Your task to perform on an android device: What's on my calendar tomorrow? Image 0: 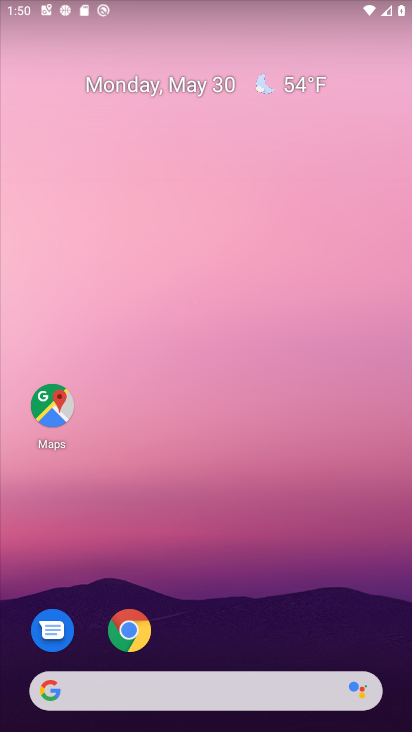
Step 0: press home button
Your task to perform on an android device: What's on my calendar tomorrow? Image 1: 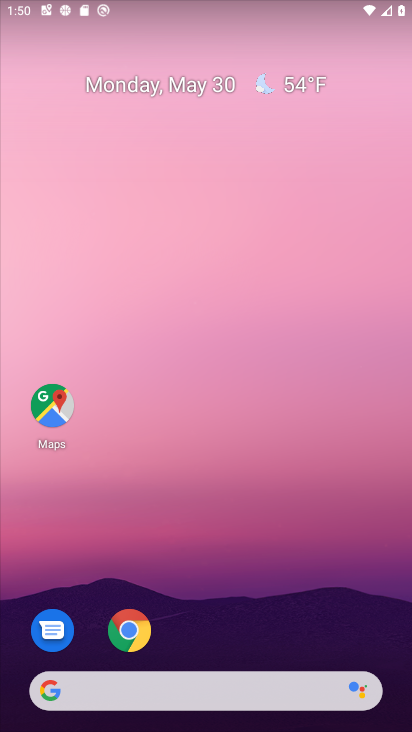
Step 1: drag from (131, 697) to (236, 110)
Your task to perform on an android device: What's on my calendar tomorrow? Image 2: 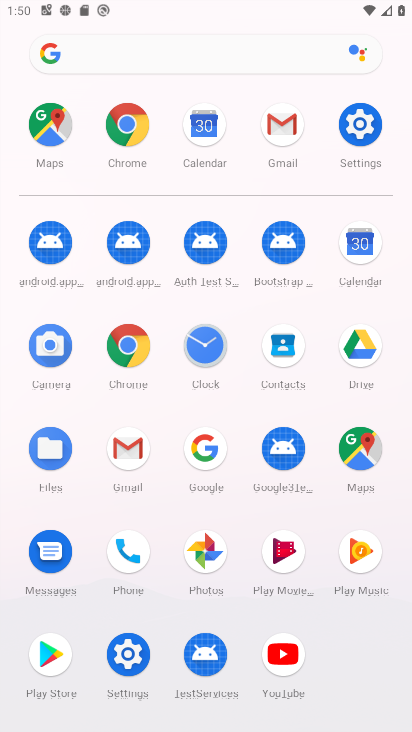
Step 2: click (203, 135)
Your task to perform on an android device: What's on my calendar tomorrow? Image 3: 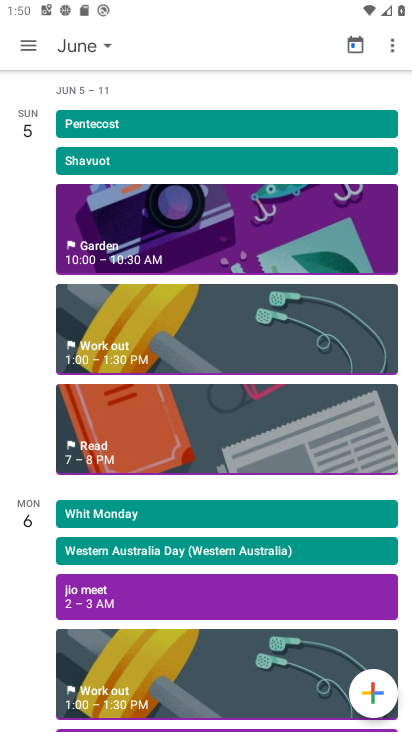
Step 3: click (77, 52)
Your task to perform on an android device: What's on my calendar tomorrow? Image 4: 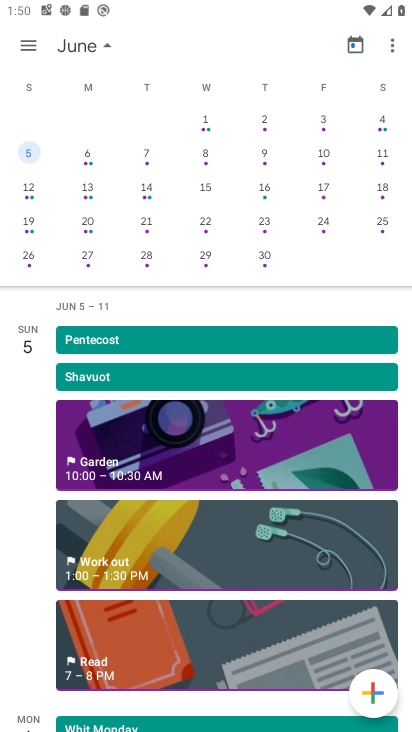
Step 4: drag from (115, 242) to (377, 257)
Your task to perform on an android device: What's on my calendar tomorrow? Image 5: 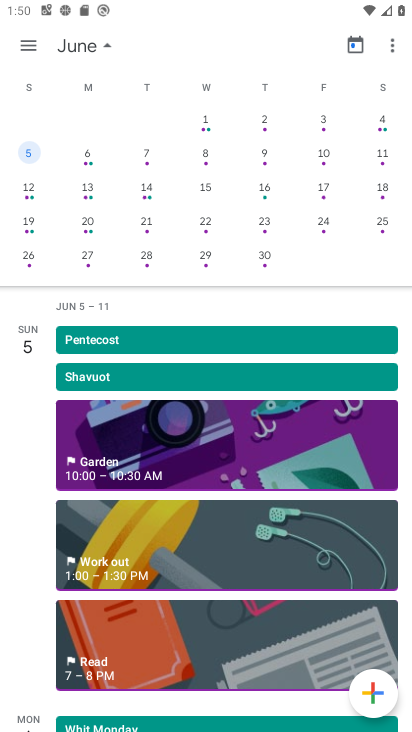
Step 5: drag from (72, 177) to (396, 250)
Your task to perform on an android device: What's on my calendar tomorrow? Image 6: 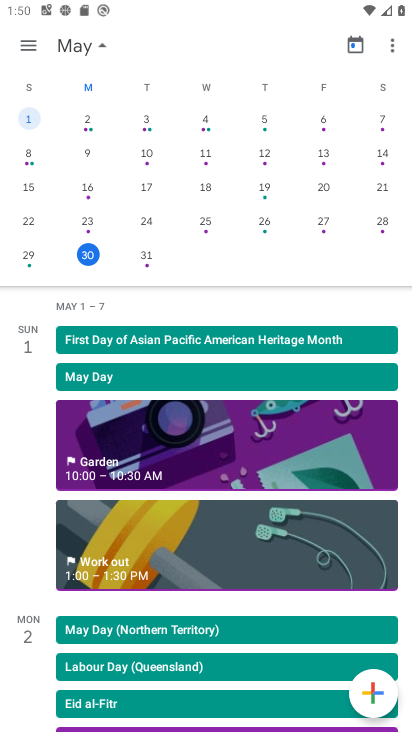
Step 6: click (146, 259)
Your task to perform on an android device: What's on my calendar tomorrow? Image 7: 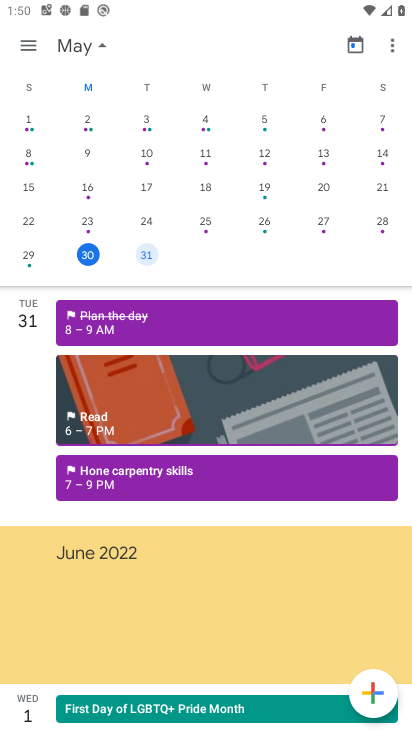
Step 7: click (37, 41)
Your task to perform on an android device: What's on my calendar tomorrow? Image 8: 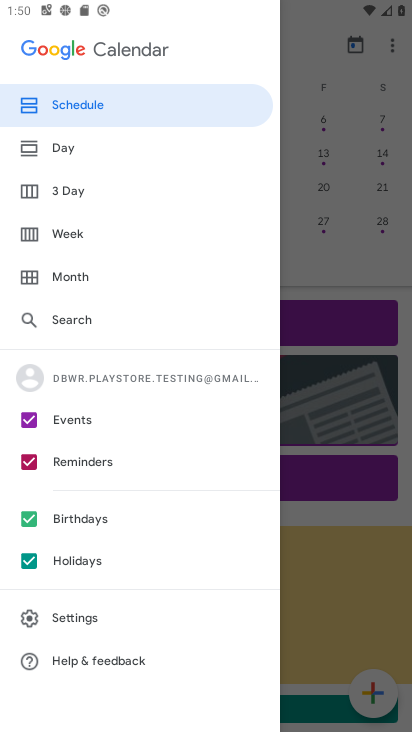
Step 8: click (58, 152)
Your task to perform on an android device: What's on my calendar tomorrow? Image 9: 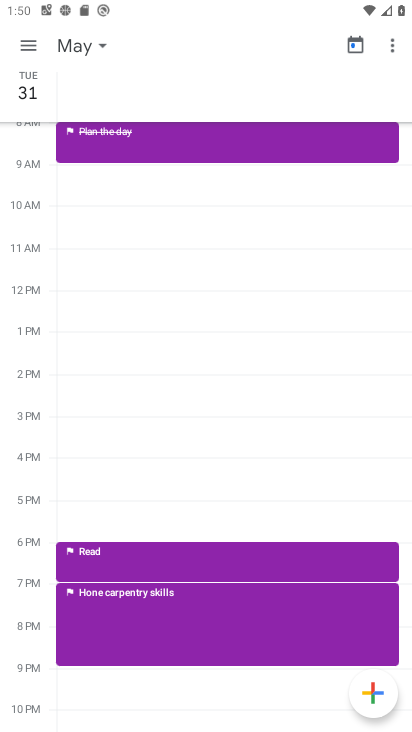
Step 9: task complete